Your task to perform on an android device: open app "Pandora - Music & Podcasts" (install if not already installed) and enter user name: "creator@yahoo.com" and password: "valuable" Image 0: 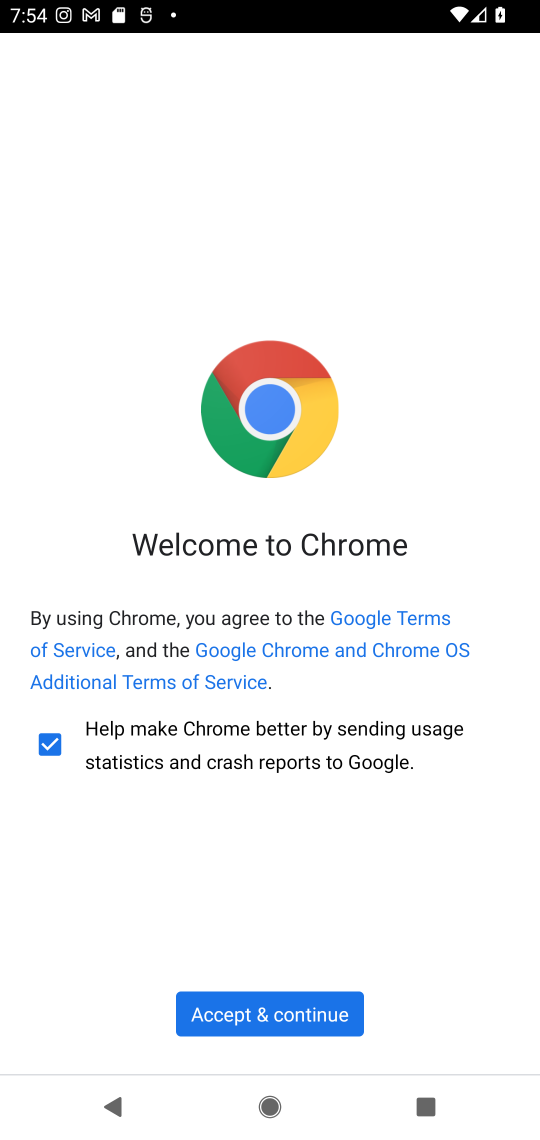
Step 0: press home button
Your task to perform on an android device: open app "Pandora - Music & Podcasts" (install if not already installed) and enter user name: "creator@yahoo.com" and password: "valuable" Image 1: 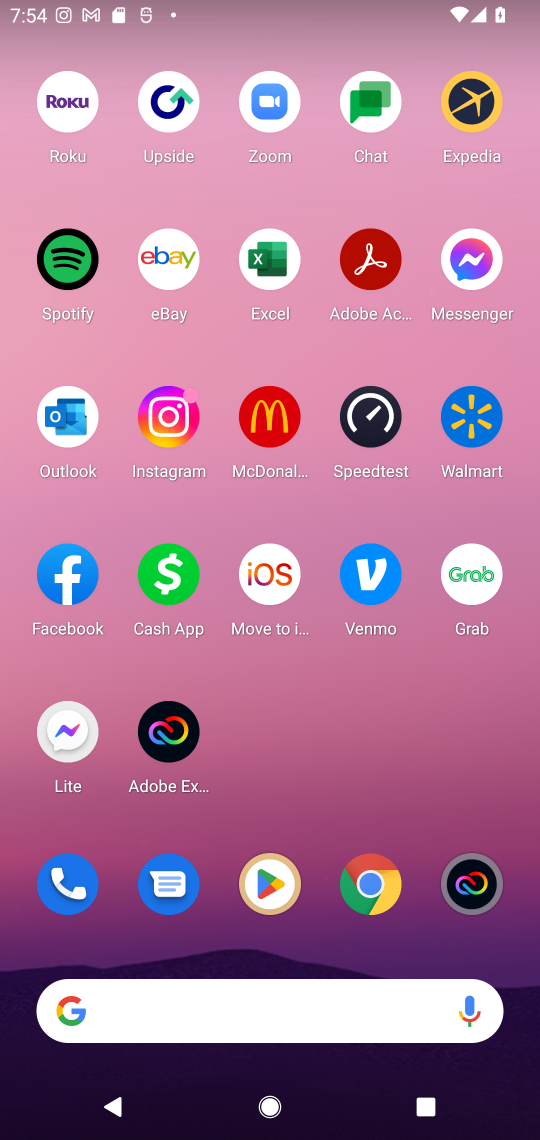
Step 1: drag from (244, 1010) to (300, 505)
Your task to perform on an android device: open app "Pandora - Music & Podcasts" (install if not already installed) and enter user name: "creator@yahoo.com" and password: "valuable" Image 2: 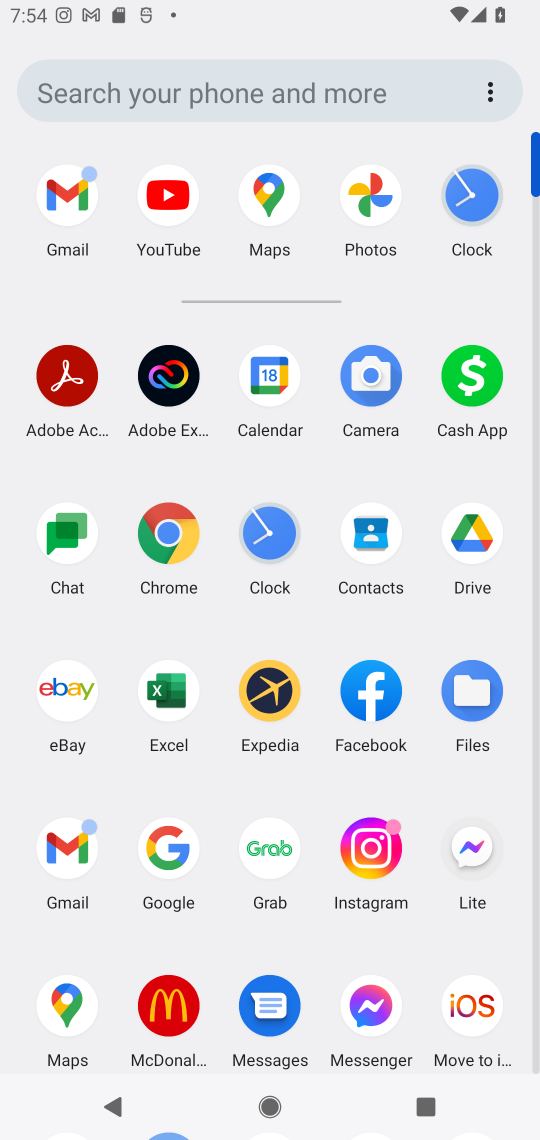
Step 2: drag from (215, 800) to (216, 350)
Your task to perform on an android device: open app "Pandora - Music & Podcasts" (install if not already installed) and enter user name: "creator@yahoo.com" and password: "valuable" Image 3: 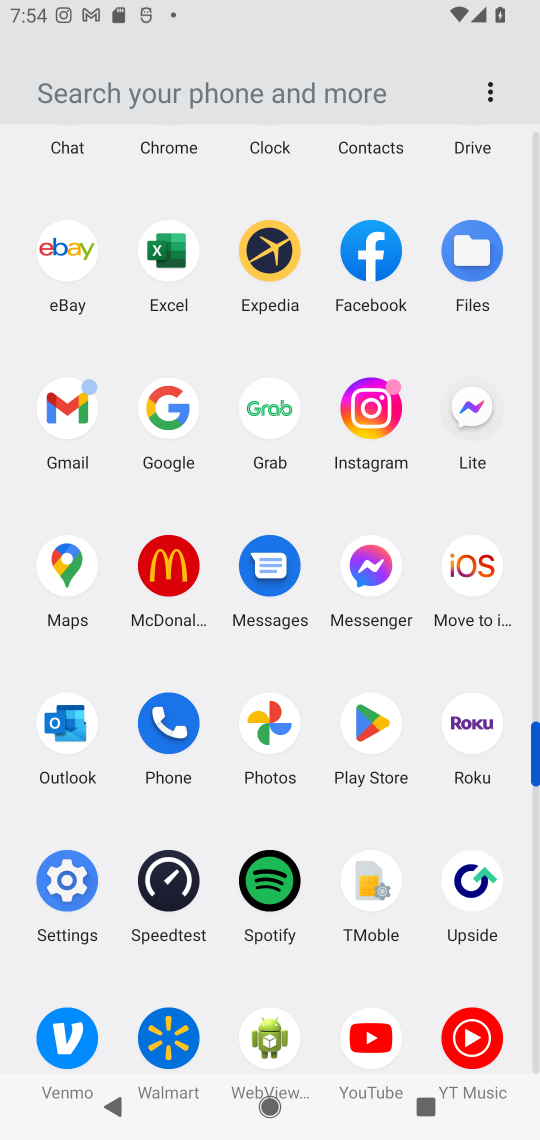
Step 3: click (378, 722)
Your task to perform on an android device: open app "Pandora - Music & Podcasts" (install if not already installed) and enter user name: "creator@yahoo.com" and password: "valuable" Image 4: 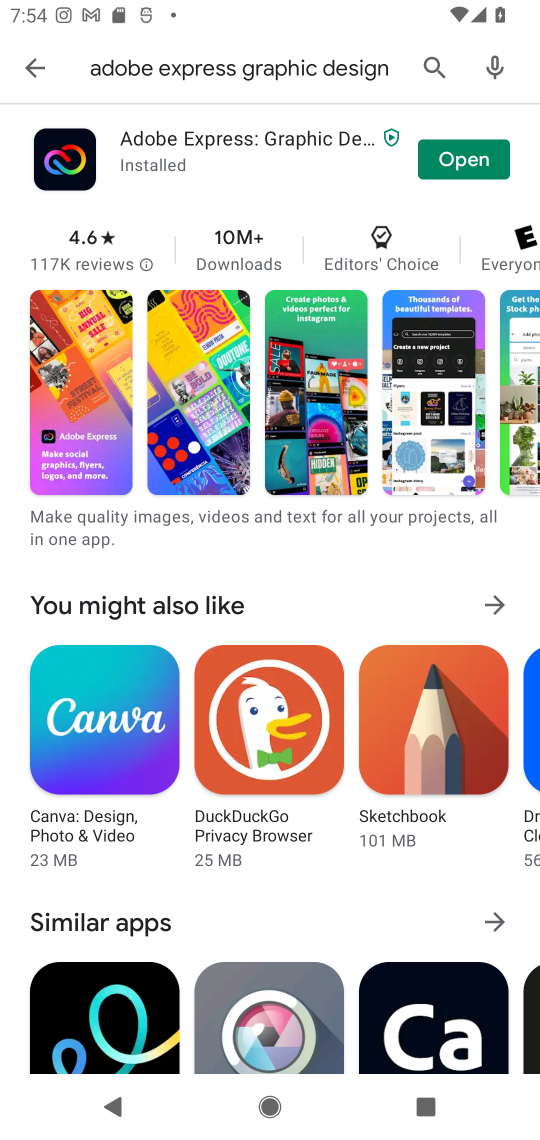
Step 4: press back button
Your task to perform on an android device: open app "Pandora - Music & Podcasts" (install if not already installed) and enter user name: "creator@yahoo.com" and password: "valuable" Image 5: 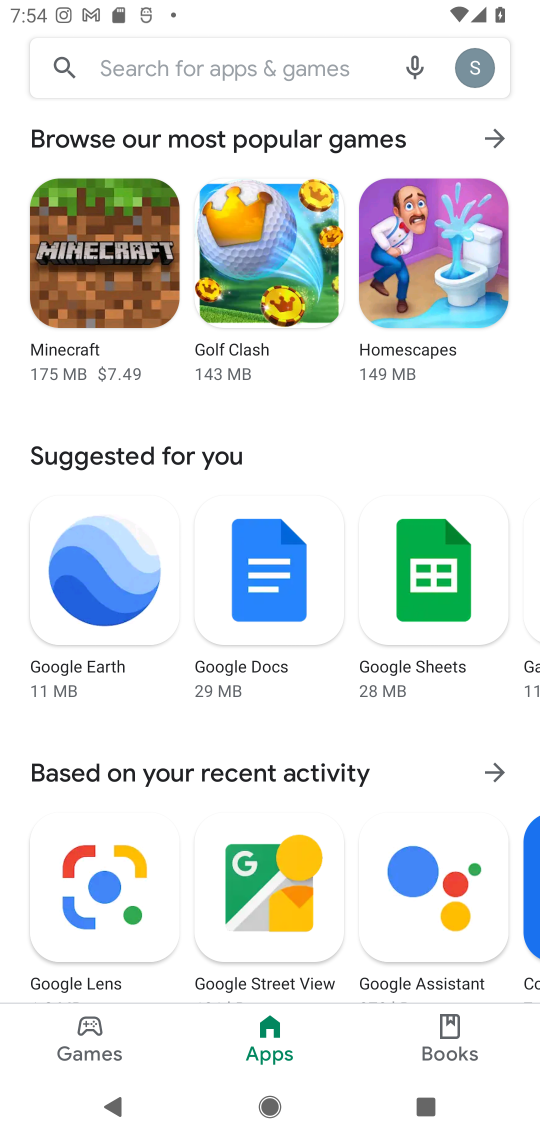
Step 5: click (233, 67)
Your task to perform on an android device: open app "Pandora - Music & Podcasts" (install if not already installed) and enter user name: "creator@yahoo.com" and password: "valuable" Image 6: 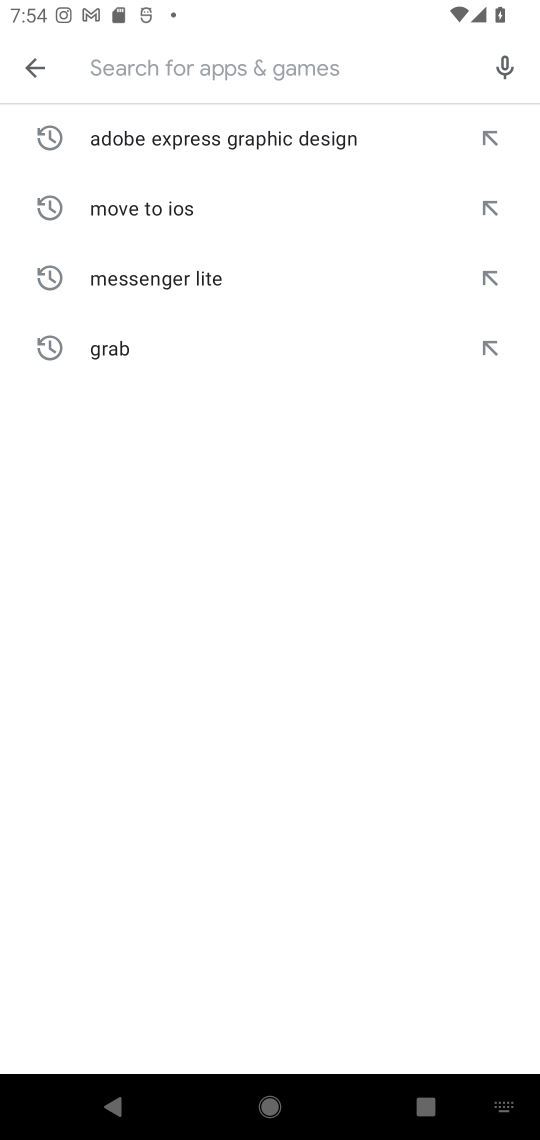
Step 6: type "Pandora - Music & Podcasts"
Your task to perform on an android device: open app "Pandora - Music & Podcasts" (install if not already installed) and enter user name: "creator@yahoo.com" and password: "valuable" Image 7: 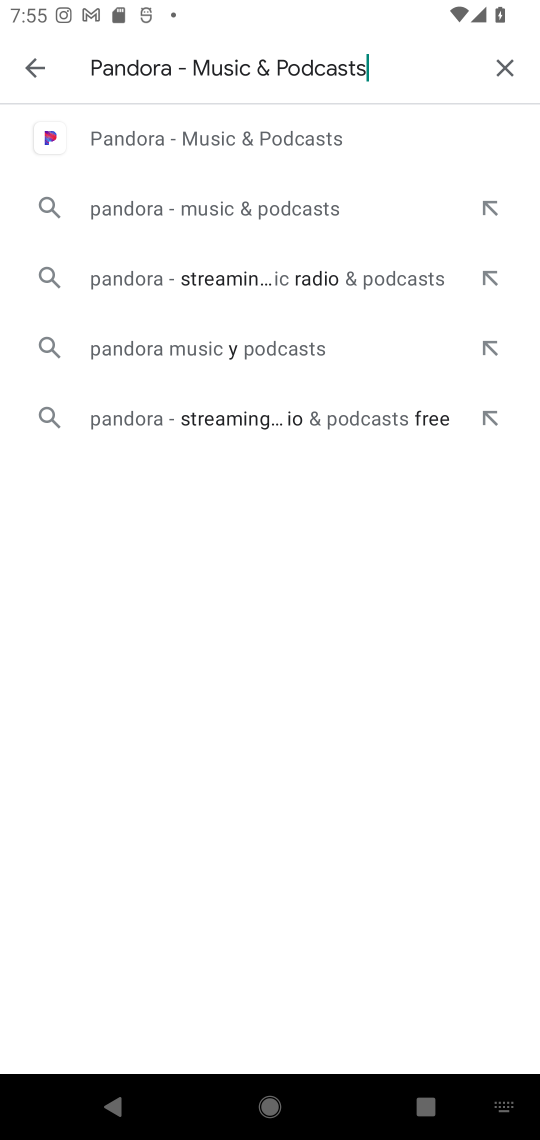
Step 7: click (244, 146)
Your task to perform on an android device: open app "Pandora - Music & Podcasts" (install if not already installed) and enter user name: "creator@yahoo.com" and password: "valuable" Image 8: 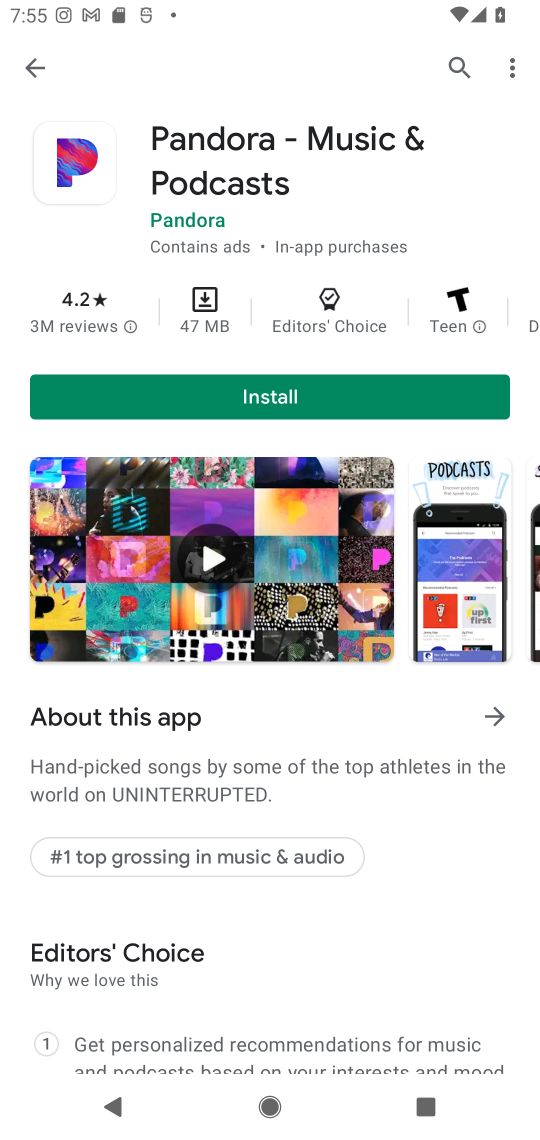
Step 8: click (275, 400)
Your task to perform on an android device: open app "Pandora - Music & Podcasts" (install if not already installed) and enter user name: "creator@yahoo.com" and password: "valuable" Image 9: 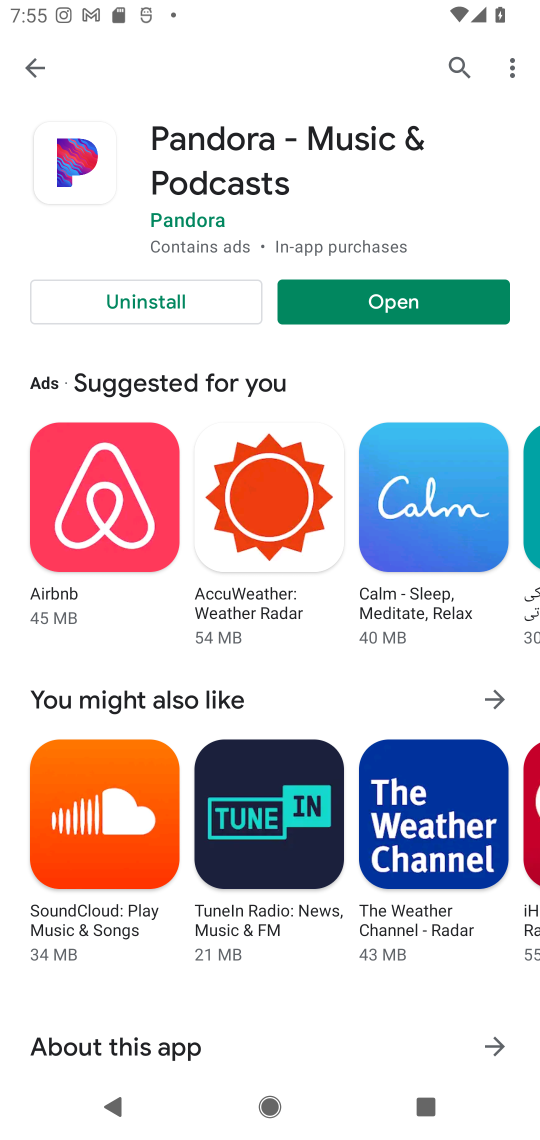
Step 9: click (395, 306)
Your task to perform on an android device: open app "Pandora - Music & Podcasts" (install if not already installed) and enter user name: "creator@yahoo.com" and password: "valuable" Image 10: 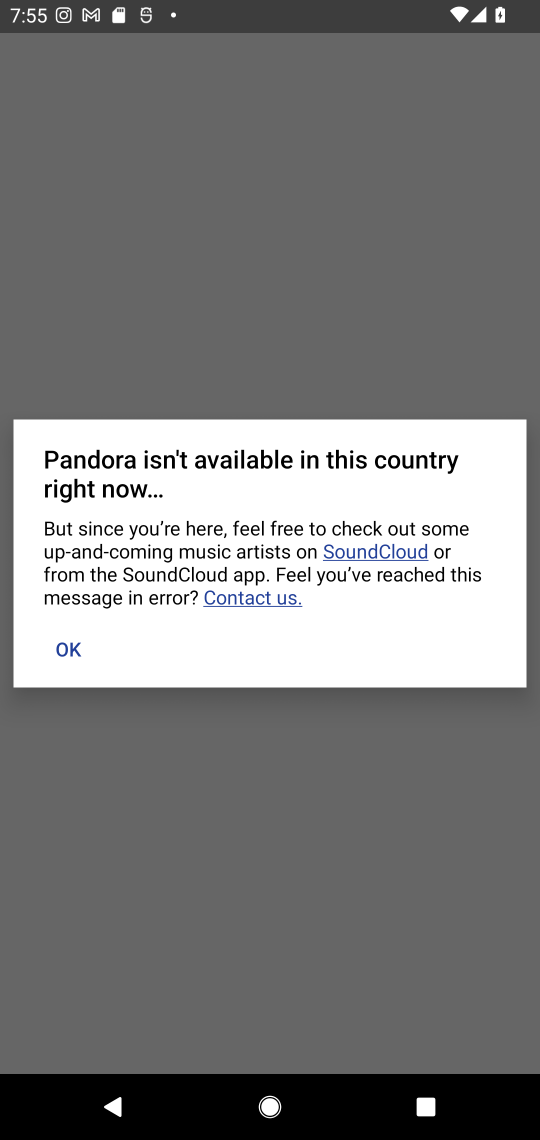
Step 10: click (66, 649)
Your task to perform on an android device: open app "Pandora - Music & Podcasts" (install if not already installed) and enter user name: "creator@yahoo.com" and password: "valuable" Image 11: 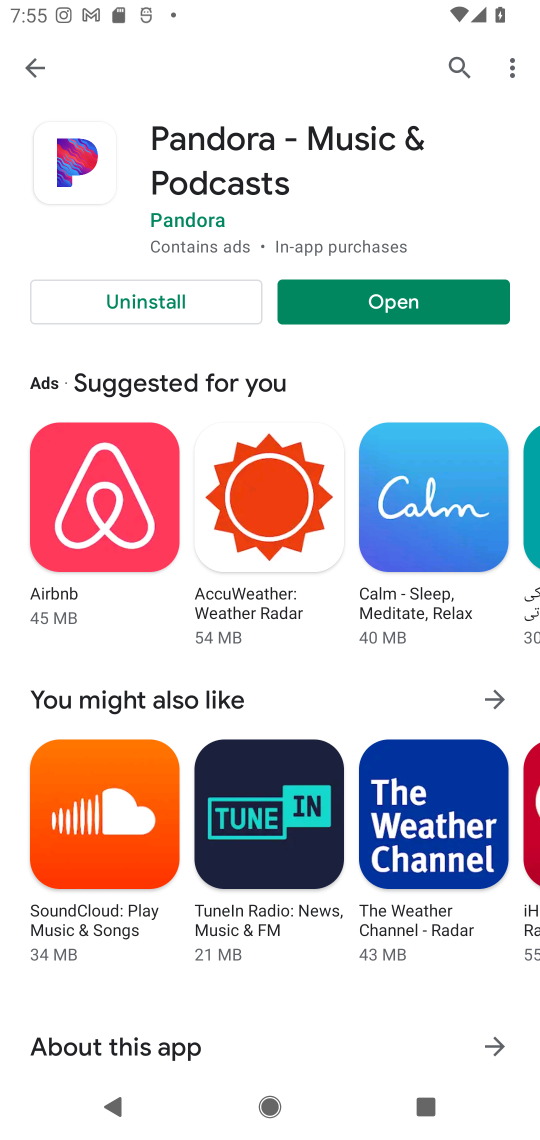
Step 11: click (384, 293)
Your task to perform on an android device: open app "Pandora - Music & Podcasts" (install if not already installed) and enter user name: "creator@yahoo.com" and password: "valuable" Image 12: 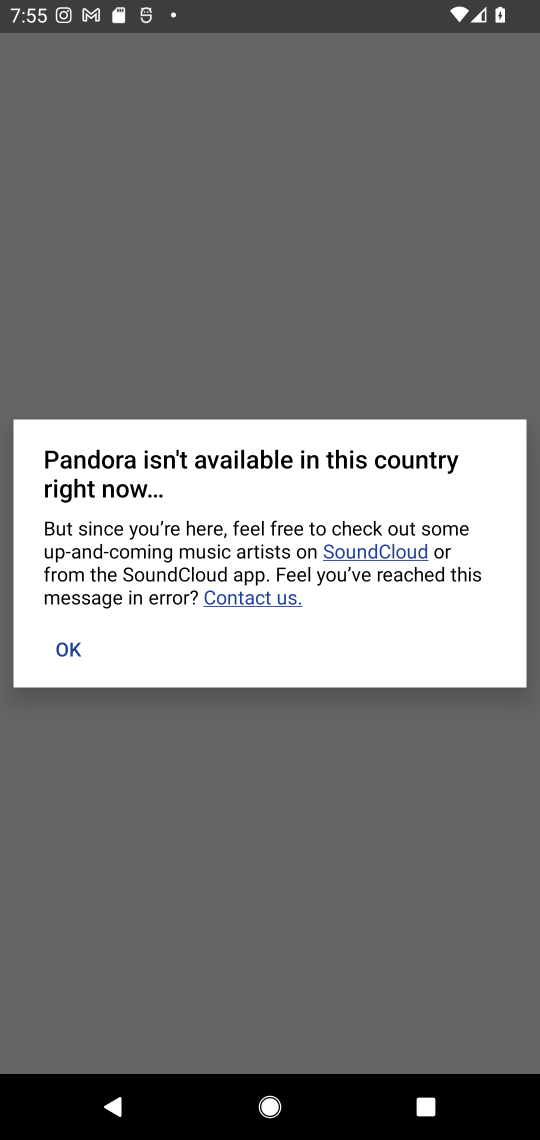
Step 12: click (68, 647)
Your task to perform on an android device: open app "Pandora - Music & Podcasts" (install if not already installed) and enter user name: "creator@yahoo.com" and password: "valuable" Image 13: 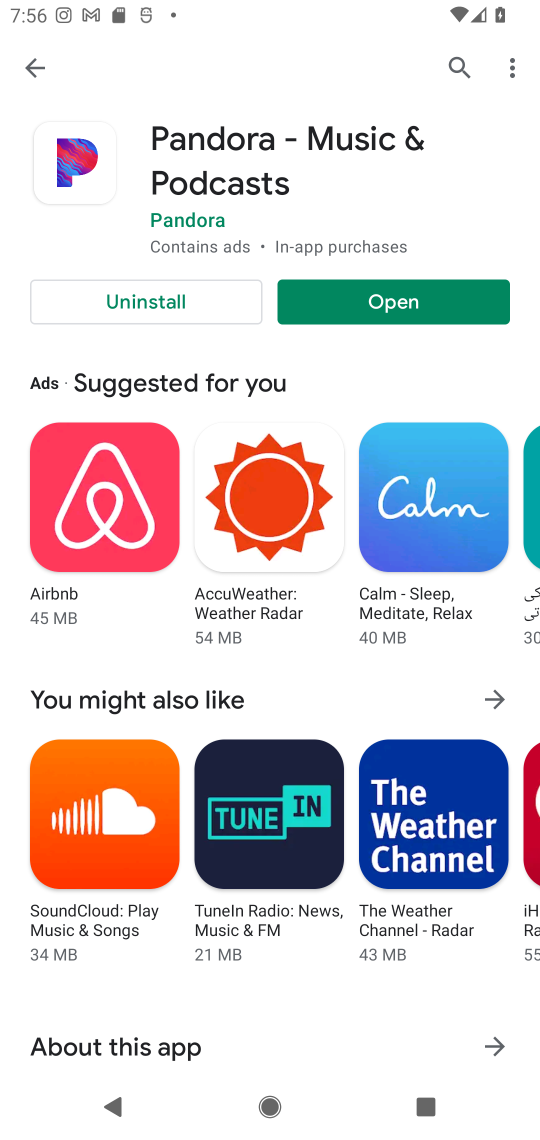
Step 13: task complete